Your task to perform on an android device: Open Maps and search for coffee Image 0: 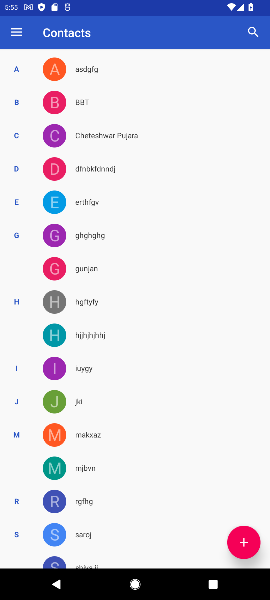
Step 0: press home button
Your task to perform on an android device: Open Maps and search for coffee Image 1: 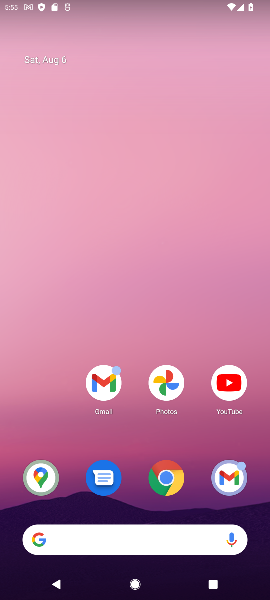
Step 1: click (45, 475)
Your task to perform on an android device: Open Maps and search for coffee Image 2: 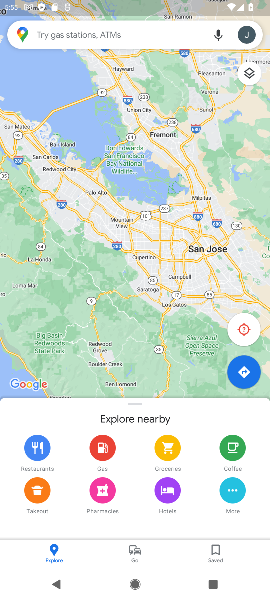
Step 2: click (118, 26)
Your task to perform on an android device: Open Maps and search for coffee Image 3: 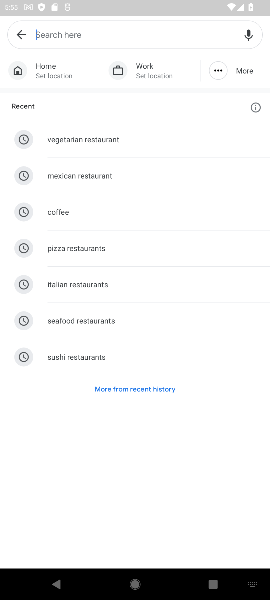
Step 3: click (60, 215)
Your task to perform on an android device: Open Maps and search for coffee Image 4: 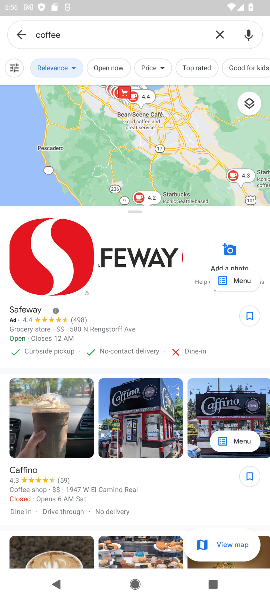
Step 4: task complete